Your task to perform on an android device: Go to battery settings Image 0: 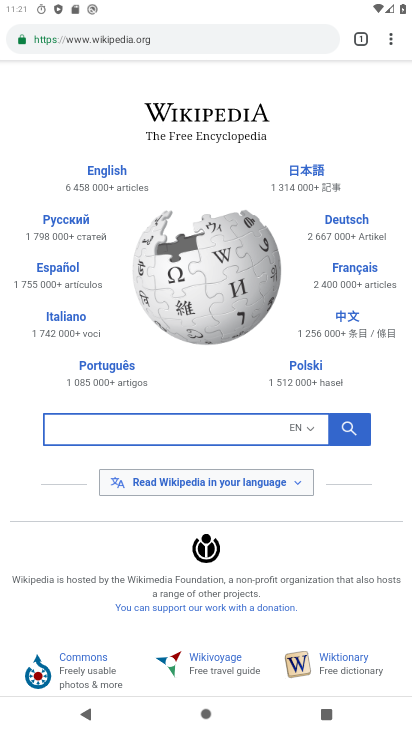
Step 0: press home button
Your task to perform on an android device: Go to battery settings Image 1: 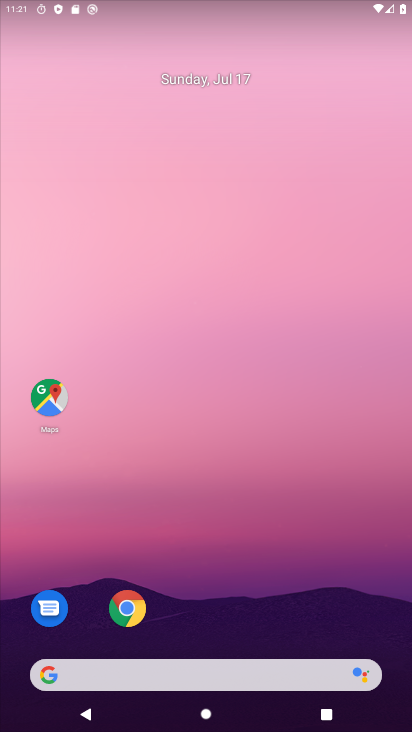
Step 1: drag from (278, 598) to (384, 22)
Your task to perform on an android device: Go to battery settings Image 2: 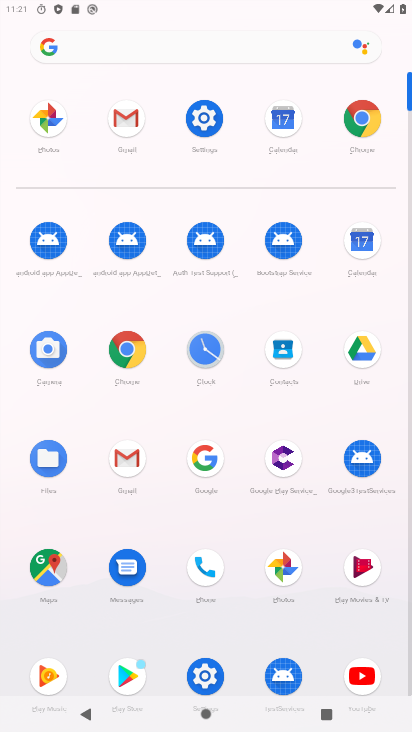
Step 2: click (216, 120)
Your task to perform on an android device: Go to battery settings Image 3: 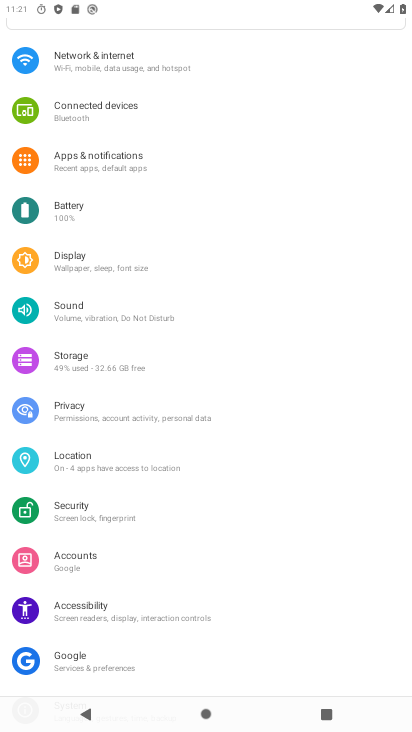
Step 3: click (75, 213)
Your task to perform on an android device: Go to battery settings Image 4: 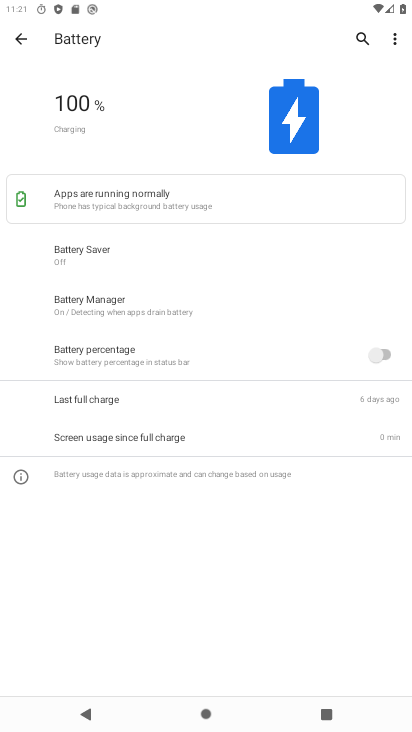
Step 4: task complete